Your task to perform on an android device: Open Amazon Image 0: 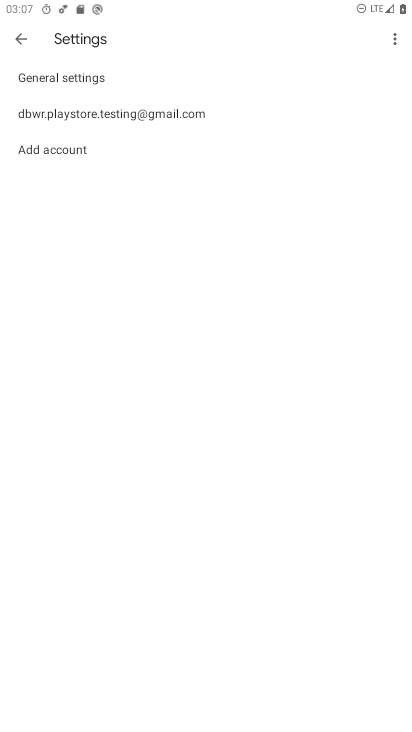
Step 0: press home button
Your task to perform on an android device: Open Amazon Image 1: 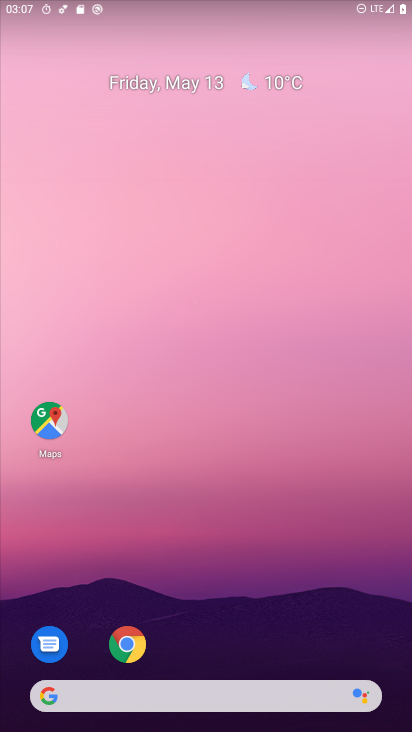
Step 1: drag from (280, 679) to (305, 56)
Your task to perform on an android device: Open Amazon Image 2: 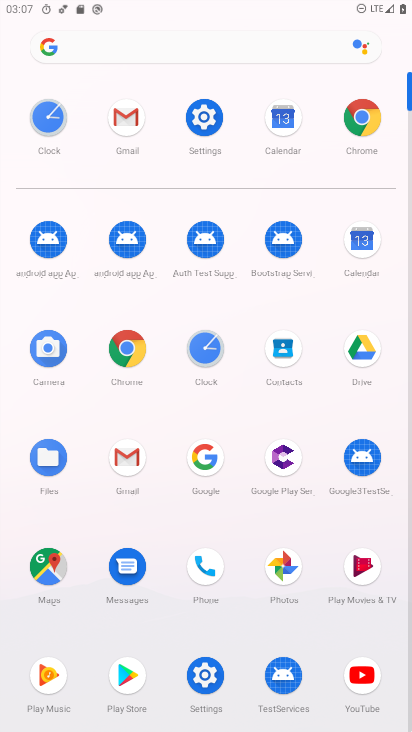
Step 2: click (128, 359)
Your task to perform on an android device: Open Amazon Image 3: 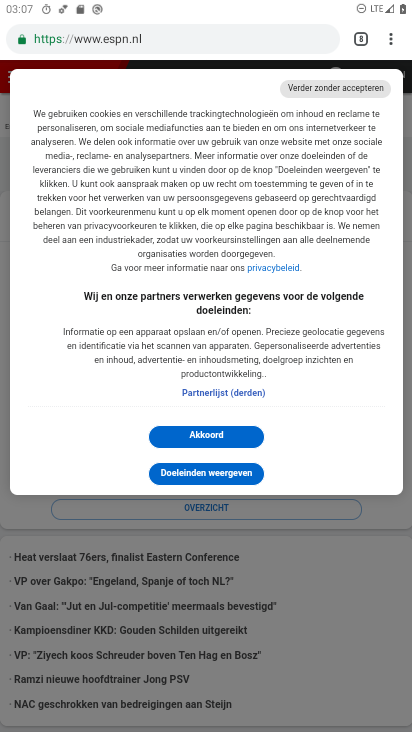
Step 3: press back button
Your task to perform on an android device: Open Amazon Image 4: 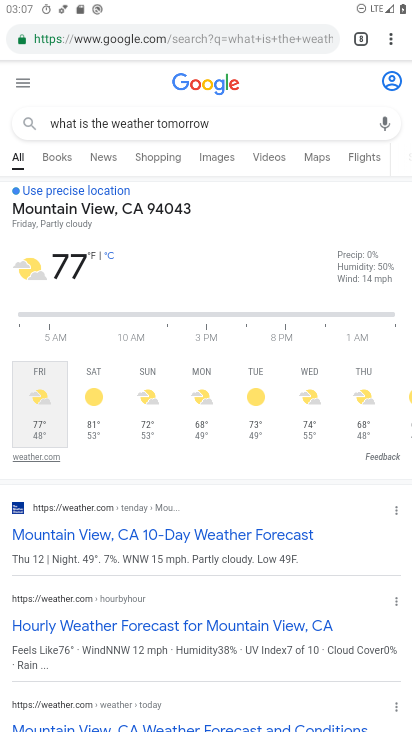
Step 4: click (209, 124)
Your task to perform on an android device: Open Amazon Image 5: 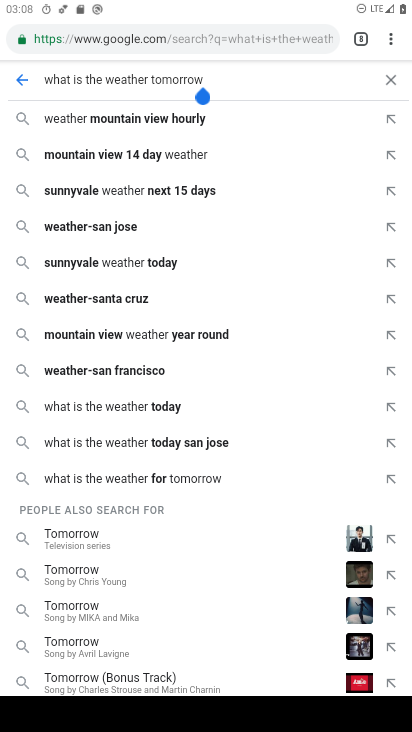
Step 5: click (389, 81)
Your task to perform on an android device: Open Amazon Image 6: 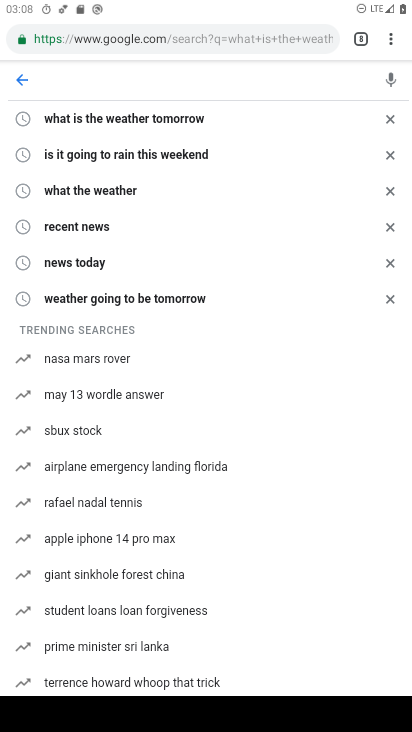
Step 6: click (249, 44)
Your task to perform on an android device: Open Amazon Image 7: 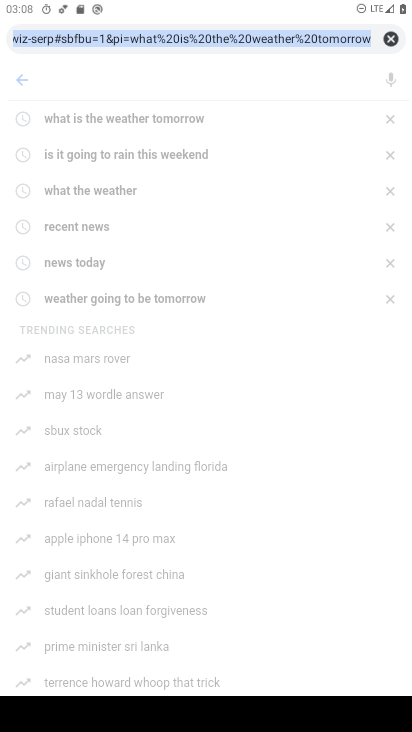
Step 7: click (385, 40)
Your task to perform on an android device: Open Amazon Image 8: 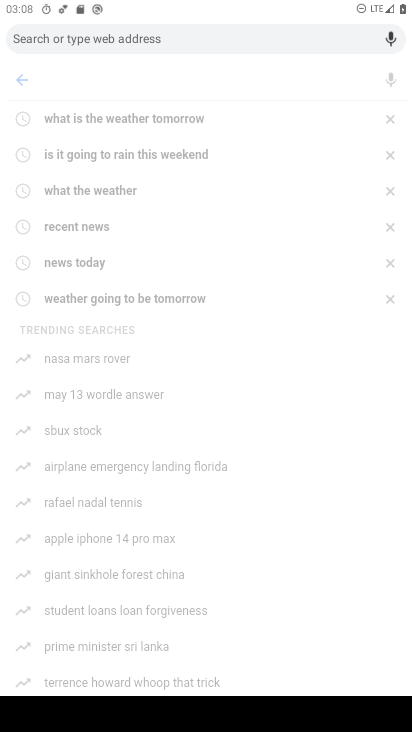
Step 8: type "amazon"
Your task to perform on an android device: Open Amazon Image 9: 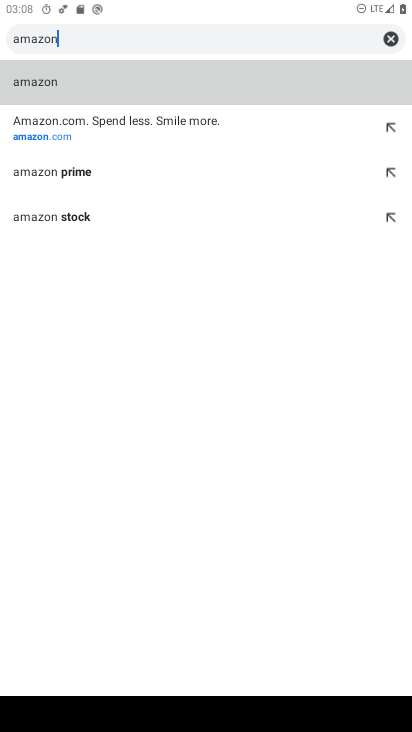
Step 9: click (134, 123)
Your task to perform on an android device: Open Amazon Image 10: 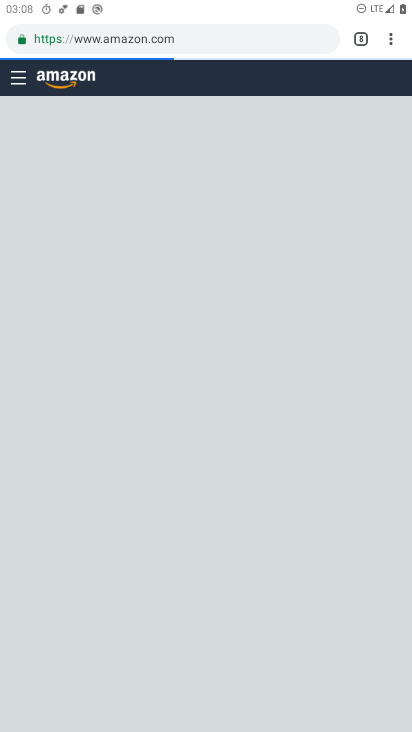
Step 10: task complete